Your task to perform on an android device: turn on data saver in the chrome app Image 0: 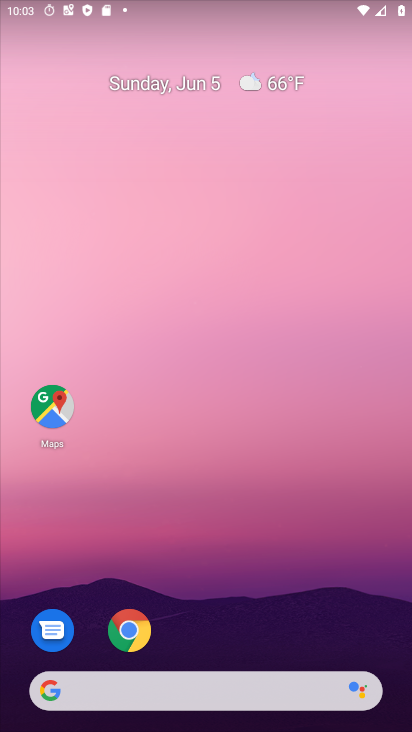
Step 0: click (135, 635)
Your task to perform on an android device: turn on data saver in the chrome app Image 1: 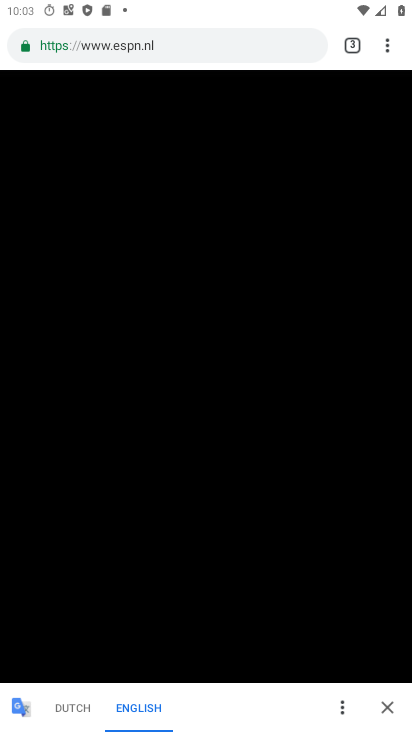
Step 1: click (389, 51)
Your task to perform on an android device: turn on data saver in the chrome app Image 2: 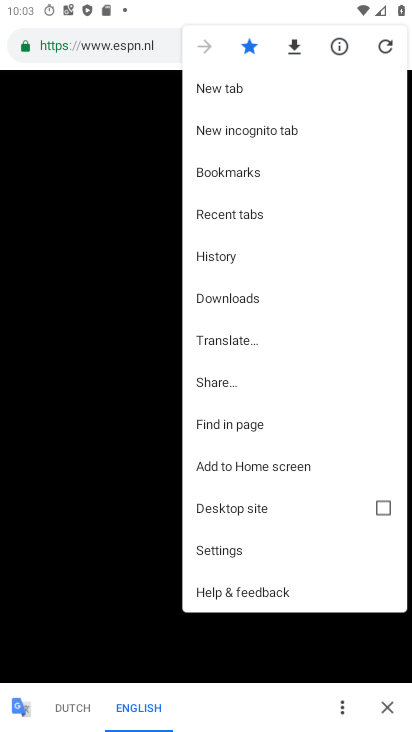
Step 2: click (227, 548)
Your task to perform on an android device: turn on data saver in the chrome app Image 3: 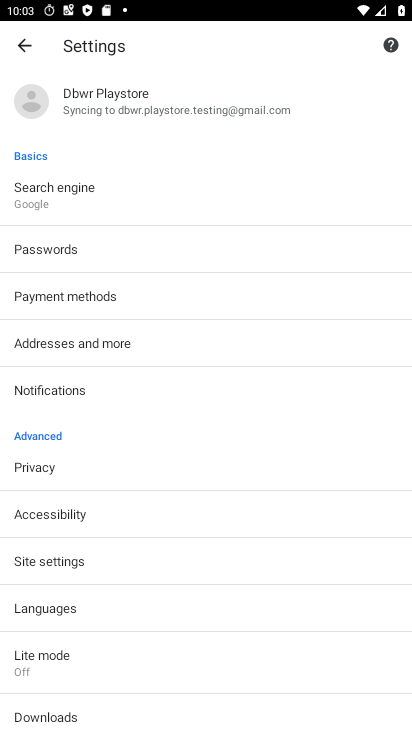
Step 3: click (35, 656)
Your task to perform on an android device: turn on data saver in the chrome app Image 4: 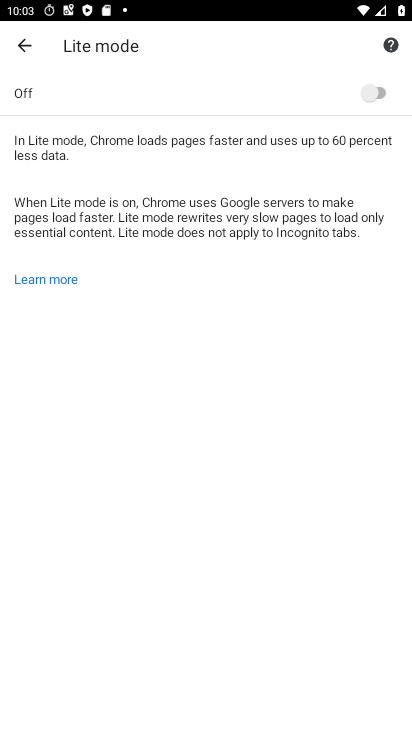
Step 4: click (383, 90)
Your task to perform on an android device: turn on data saver in the chrome app Image 5: 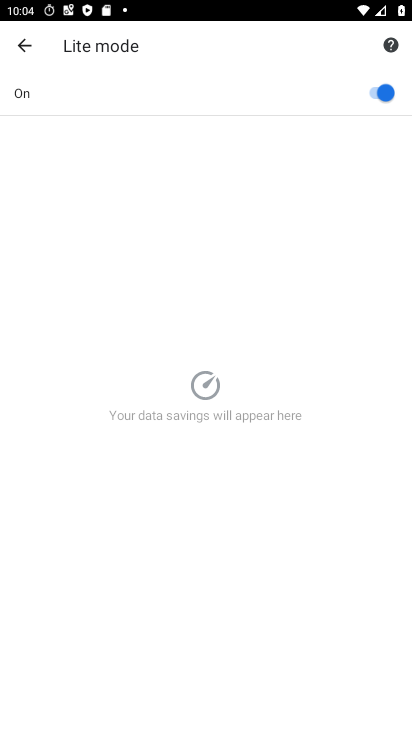
Step 5: task complete